Your task to perform on an android device: Go to Reddit.com Image 0: 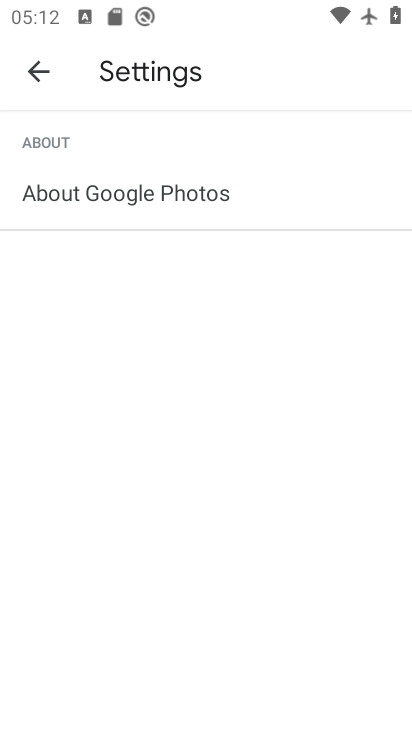
Step 0: press home button
Your task to perform on an android device: Go to Reddit.com Image 1: 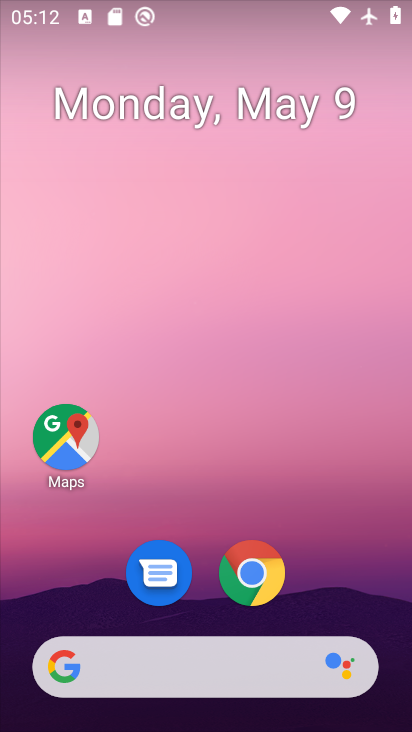
Step 1: click (251, 575)
Your task to perform on an android device: Go to Reddit.com Image 2: 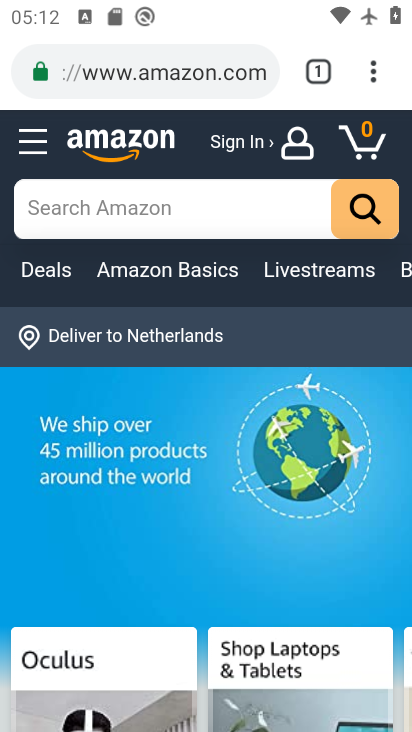
Step 2: click (160, 77)
Your task to perform on an android device: Go to Reddit.com Image 3: 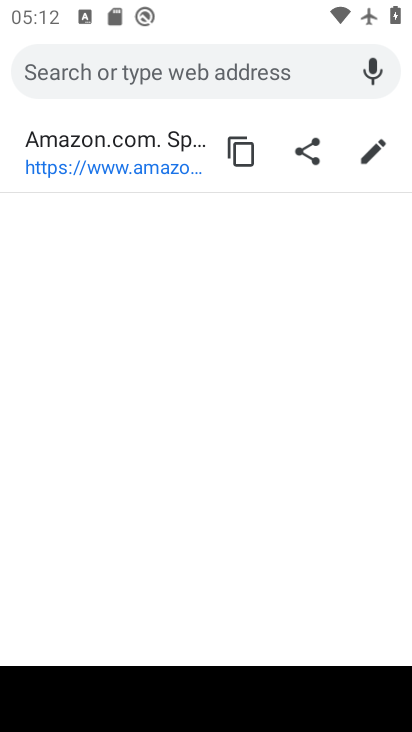
Step 3: type "reddit.com"
Your task to perform on an android device: Go to Reddit.com Image 4: 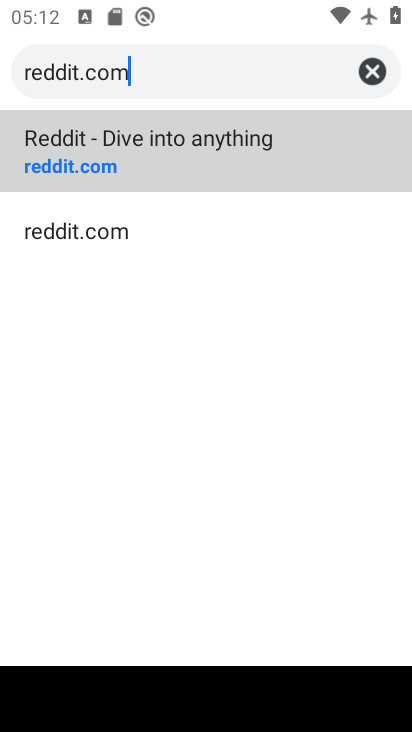
Step 4: click (63, 139)
Your task to perform on an android device: Go to Reddit.com Image 5: 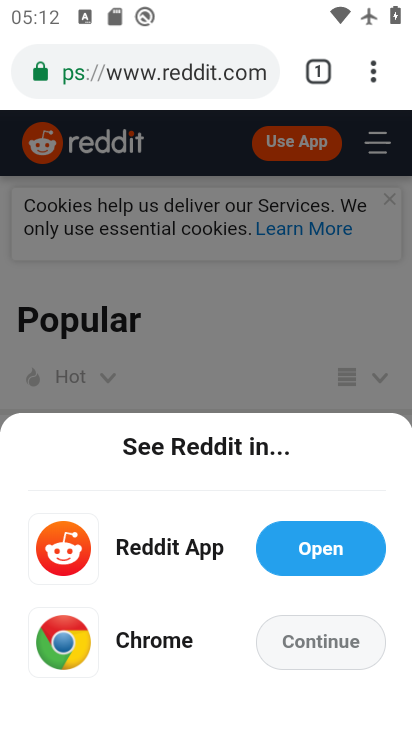
Step 5: task complete